Your task to perform on an android device: search for starred emails in the gmail app Image 0: 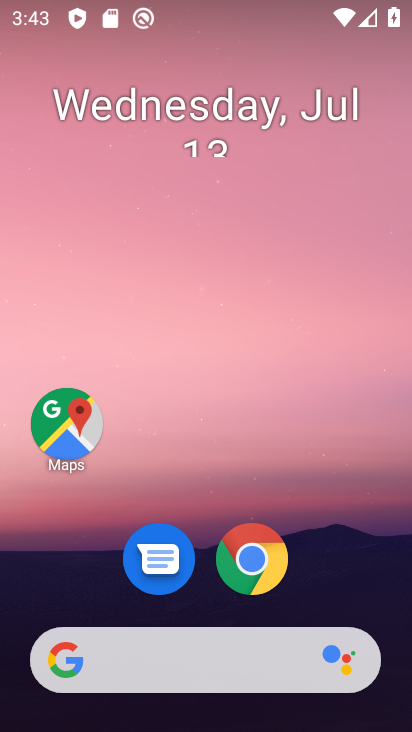
Step 0: drag from (210, 558) to (247, 343)
Your task to perform on an android device: search for starred emails in the gmail app Image 1: 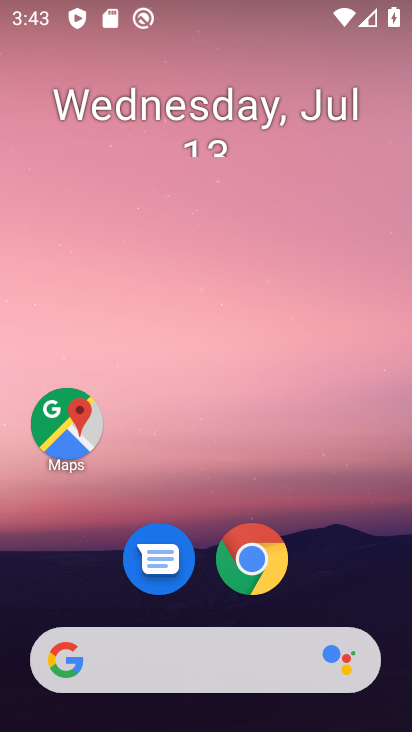
Step 1: drag from (220, 619) to (229, 130)
Your task to perform on an android device: search for starred emails in the gmail app Image 2: 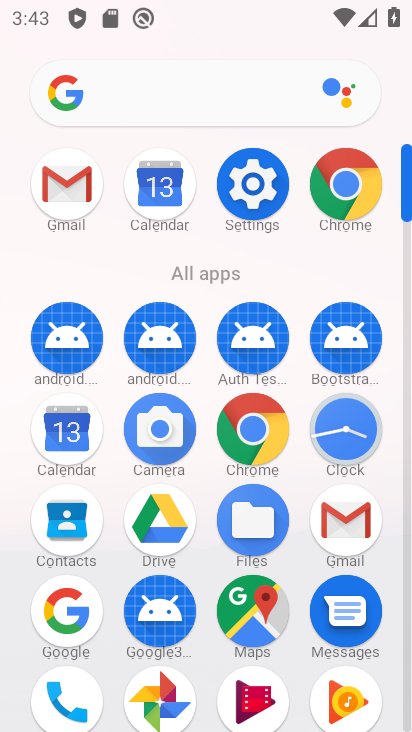
Step 2: click (61, 199)
Your task to perform on an android device: search for starred emails in the gmail app Image 3: 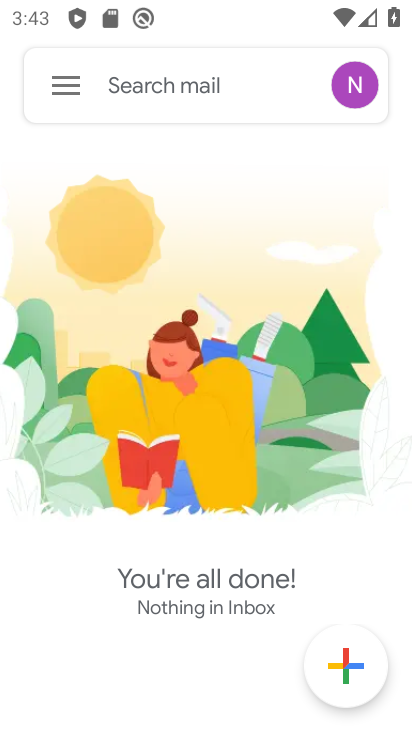
Step 3: click (72, 78)
Your task to perform on an android device: search for starred emails in the gmail app Image 4: 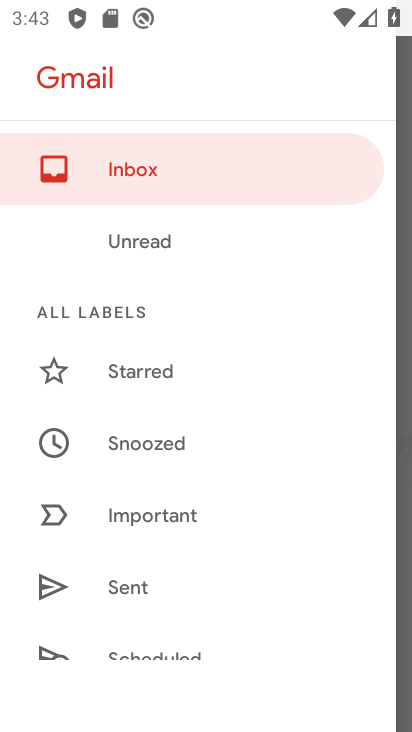
Step 4: click (148, 379)
Your task to perform on an android device: search for starred emails in the gmail app Image 5: 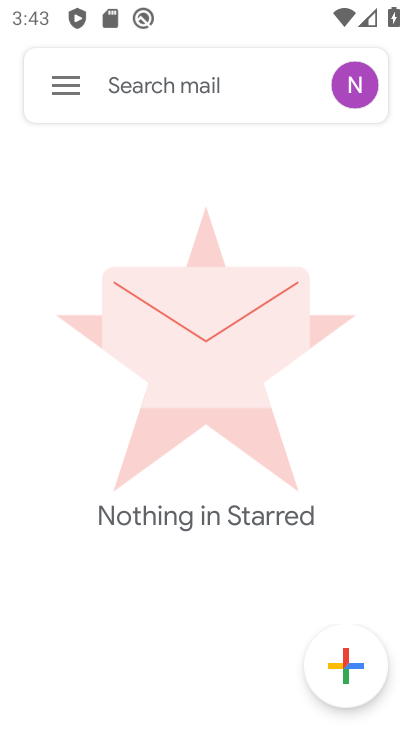
Step 5: task complete